Your task to perform on an android device: Open network settings Image 0: 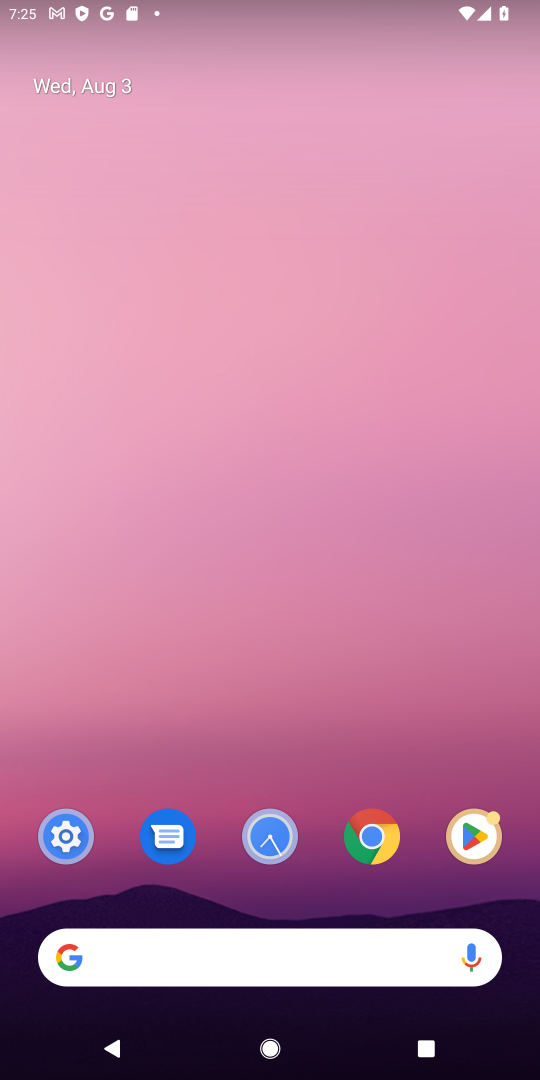
Step 0: click (71, 826)
Your task to perform on an android device: Open network settings Image 1: 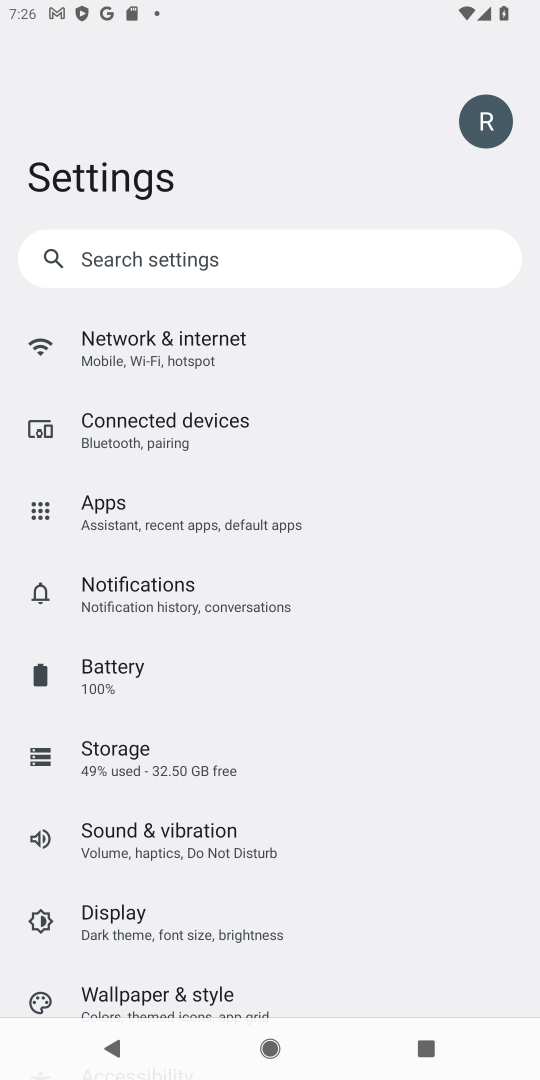
Step 1: click (164, 348)
Your task to perform on an android device: Open network settings Image 2: 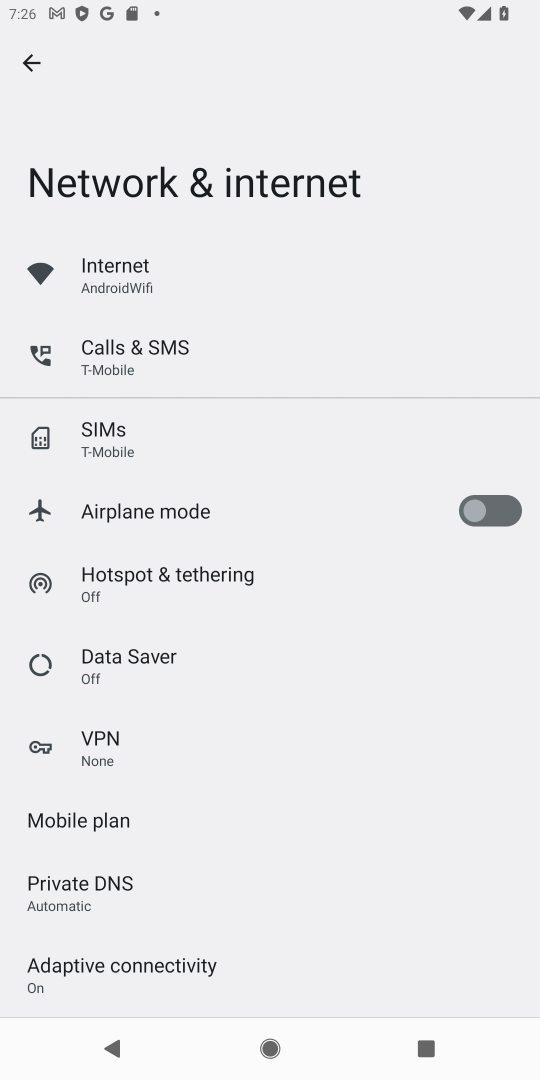
Step 2: task complete